Your task to perform on an android device: Open Chrome and go to the settings page Image 0: 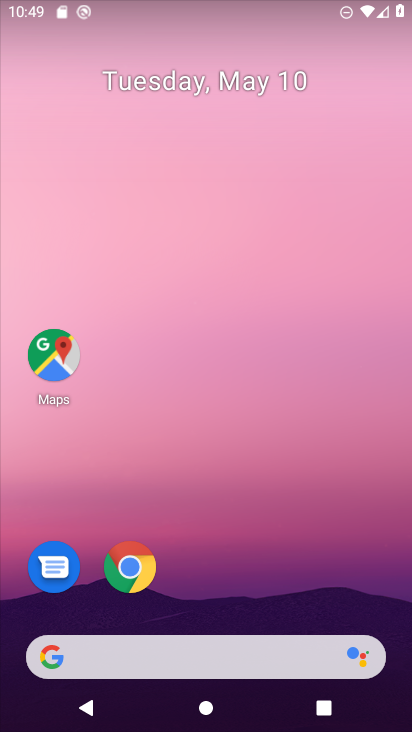
Step 0: click (166, 567)
Your task to perform on an android device: Open Chrome and go to the settings page Image 1: 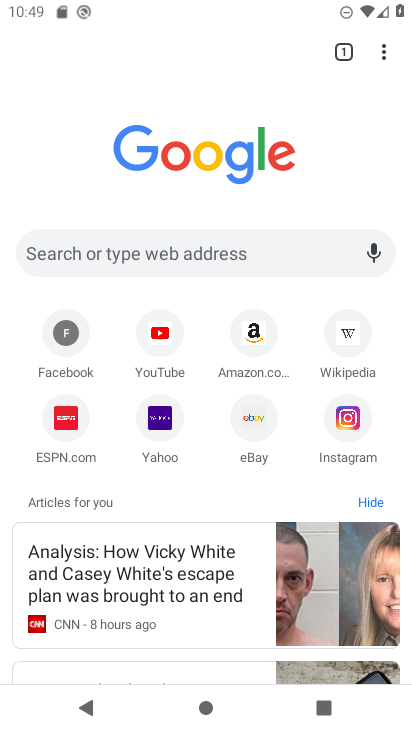
Step 1: task complete